Your task to perform on an android device: toggle pop-ups in chrome Image 0: 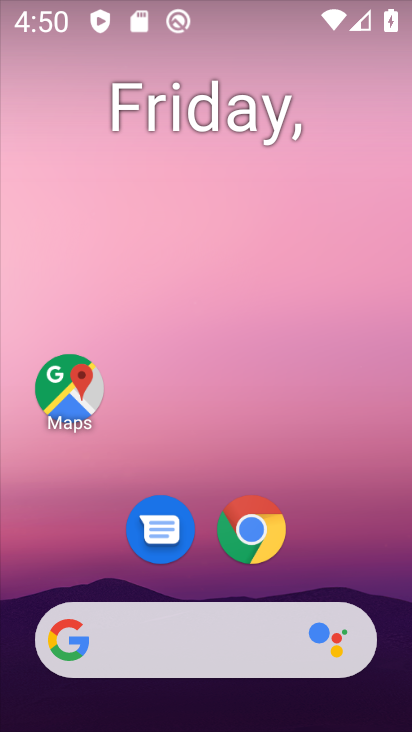
Step 0: click (251, 536)
Your task to perform on an android device: toggle pop-ups in chrome Image 1: 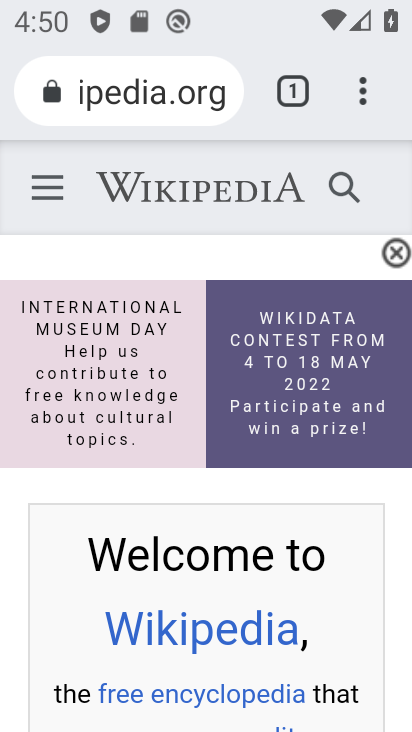
Step 1: click (362, 90)
Your task to perform on an android device: toggle pop-ups in chrome Image 2: 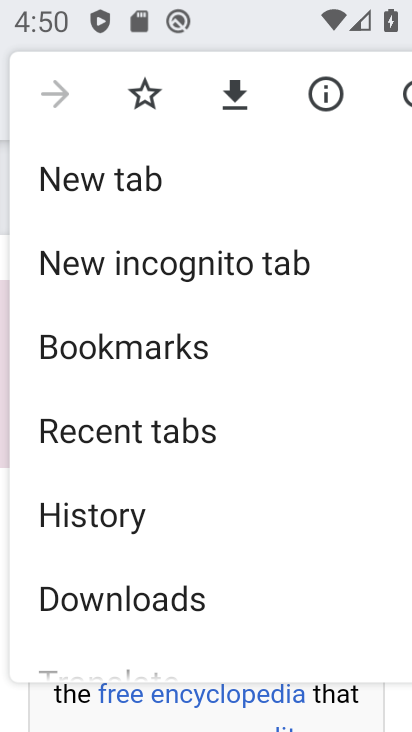
Step 2: drag from (222, 569) to (155, 139)
Your task to perform on an android device: toggle pop-ups in chrome Image 3: 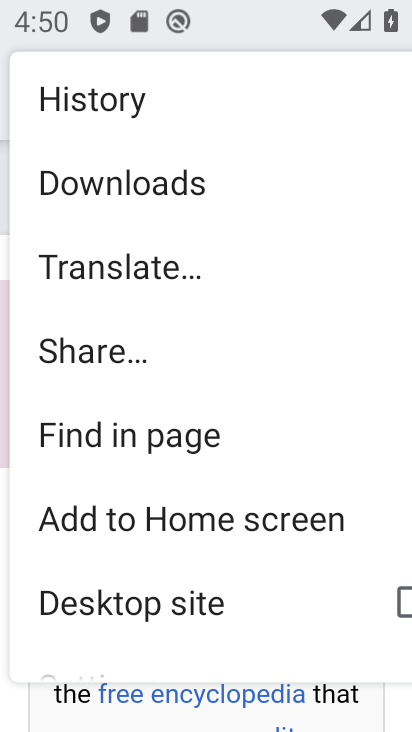
Step 3: drag from (199, 563) to (253, 215)
Your task to perform on an android device: toggle pop-ups in chrome Image 4: 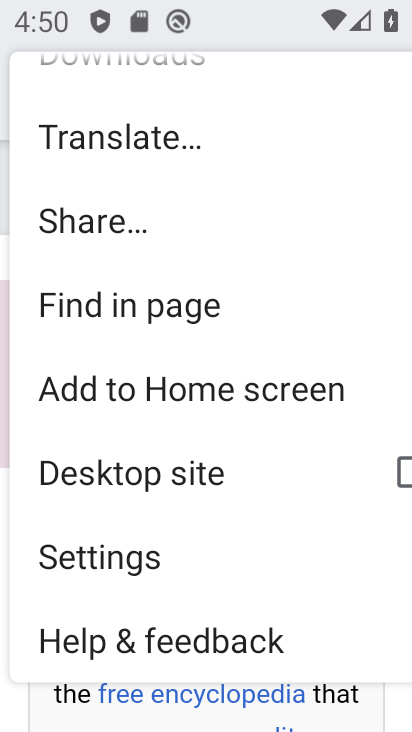
Step 4: click (105, 570)
Your task to perform on an android device: toggle pop-ups in chrome Image 5: 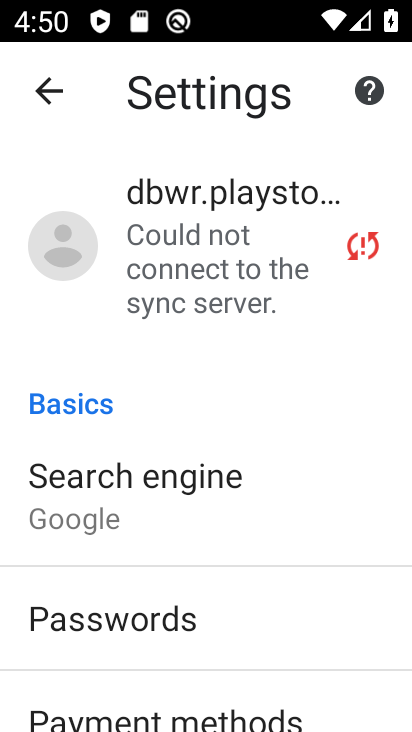
Step 5: drag from (259, 624) to (241, 147)
Your task to perform on an android device: toggle pop-ups in chrome Image 6: 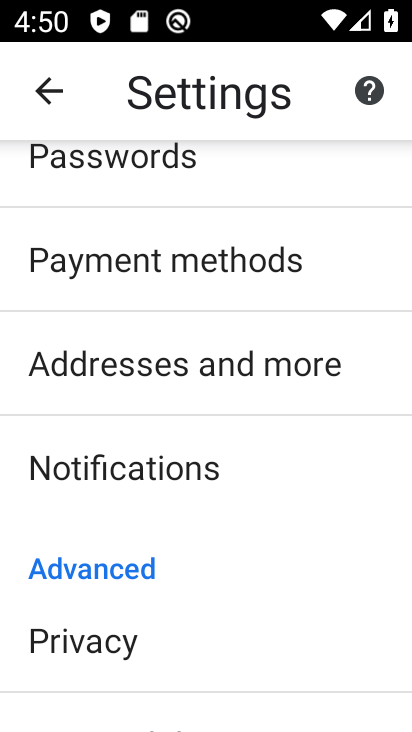
Step 6: drag from (193, 628) to (192, 200)
Your task to perform on an android device: toggle pop-ups in chrome Image 7: 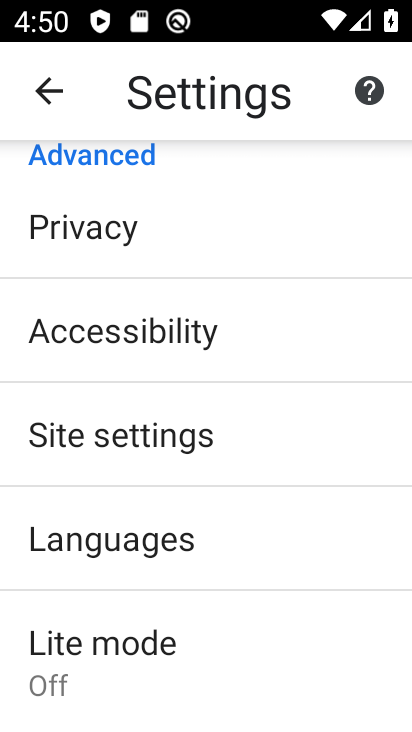
Step 7: drag from (208, 624) to (202, 257)
Your task to perform on an android device: toggle pop-ups in chrome Image 8: 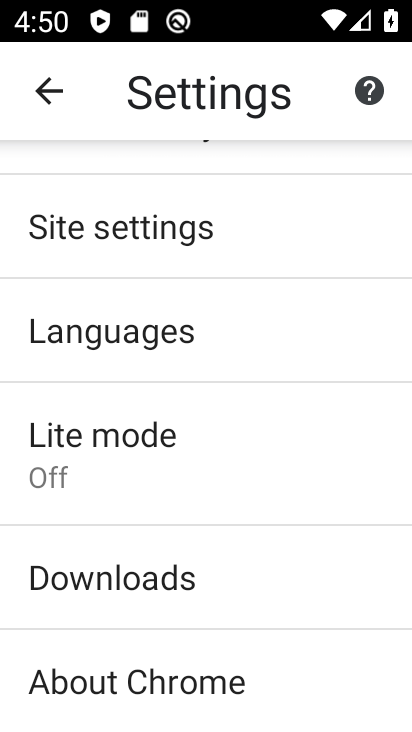
Step 8: drag from (183, 583) to (197, 654)
Your task to perform on an android device: toggle pop-ups in chrome Image 9: 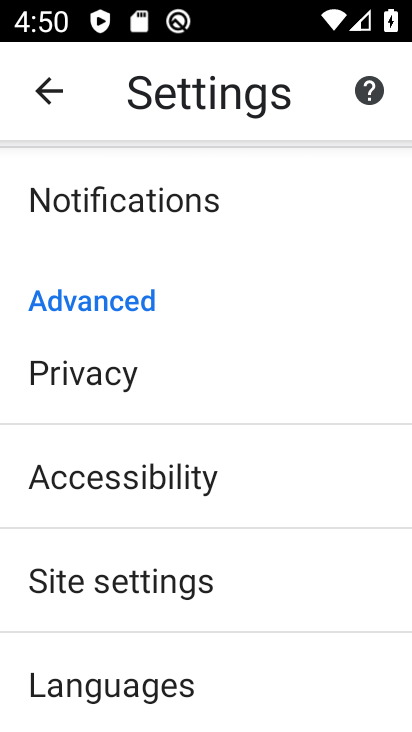
Step 9: click (150, 312)
Your task to perform on an android device: toggle pop-ups in chrome Image 10: 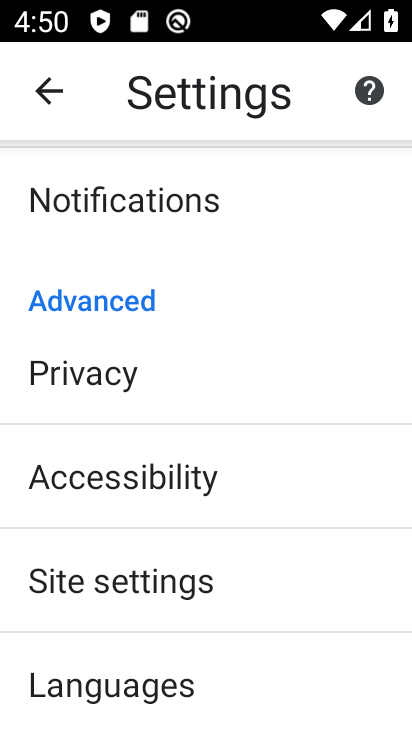
Step 10: click (163, 582)
Your task to perform on an android device: toggle pop-ups in chrome Image 11: 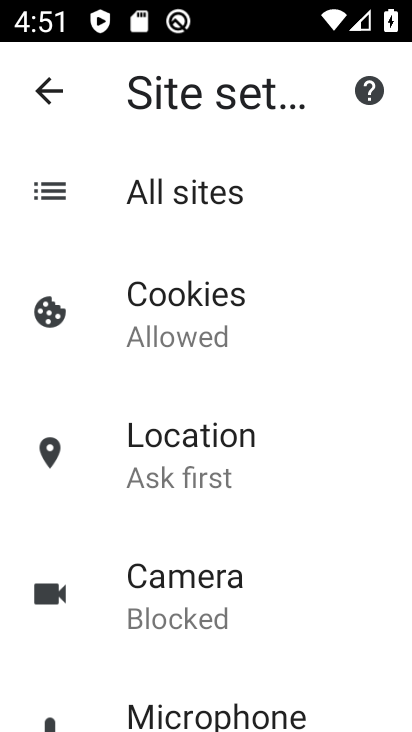
Step 11: drag from (288, 634) to (288, 118)
Your task to perform on an android device: toggle pop-ups in chrome Image 12: 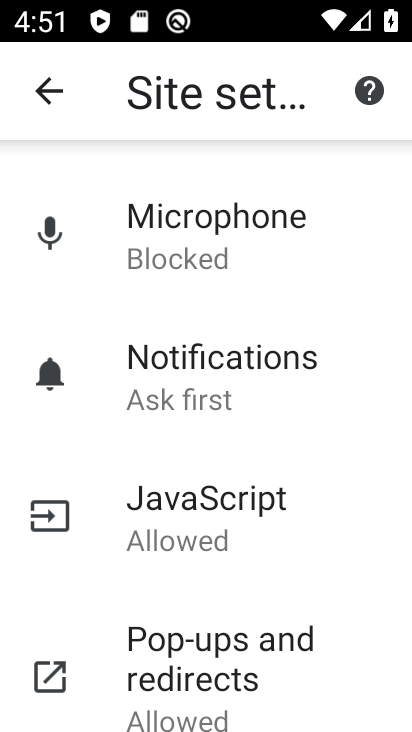
Step 12: click (246, 648)
Your task to perform on an android device: toggle pop-ups in chrome Image 13: 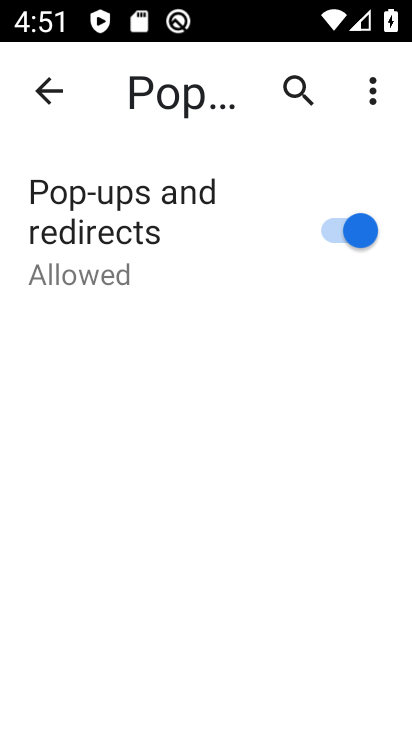
Step 13: click (365, 221)
Your task to perform on an android device: toggle pop-ups in chrome Image 14: 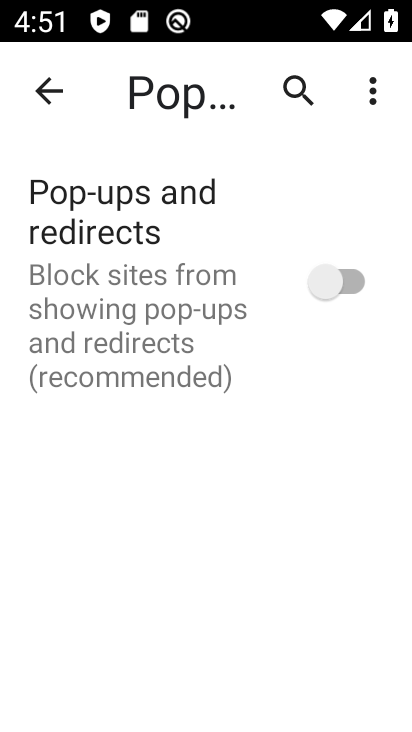
Step 14: task complete